Your task to perform on an android device: Open network settings Image 0: 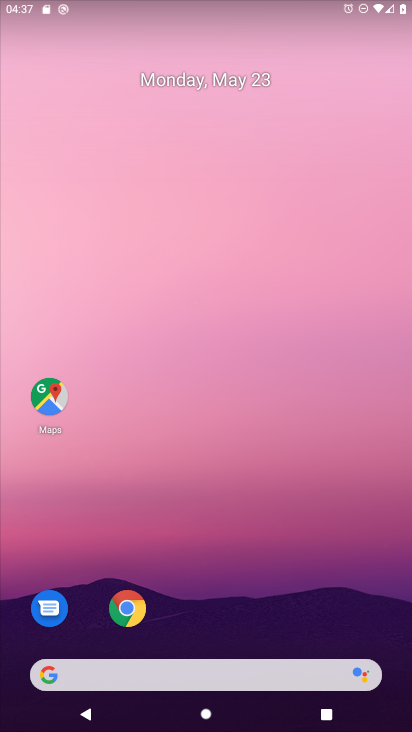
Step 0: drag from (238, 577) to (255, 157)
Your task to perform on an android device: Open network settings Image 1: 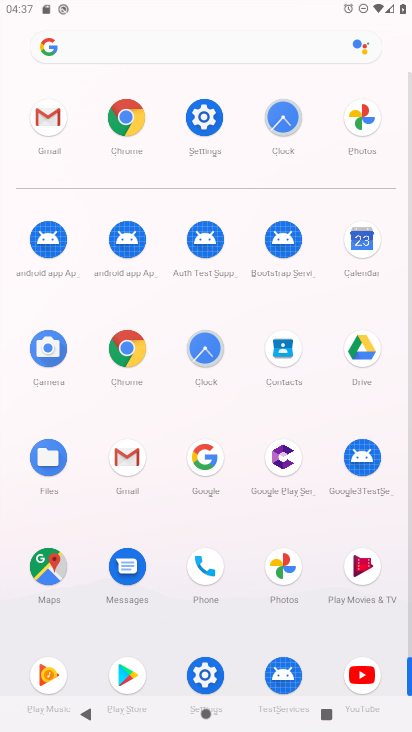
Step 1: click (205, 117)
Your task to perform on an android device: Open network settings Image 2: 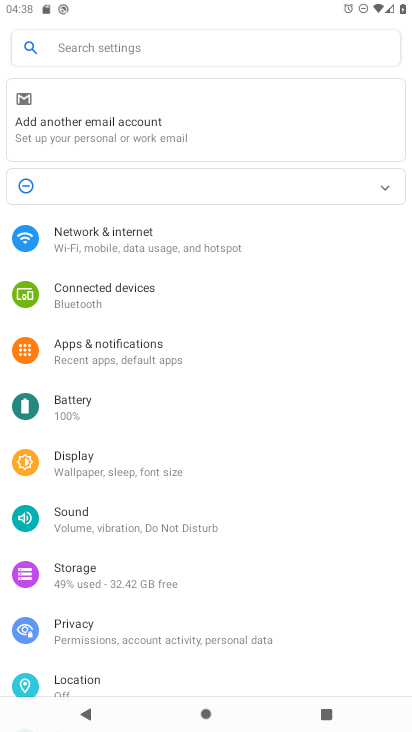
Step 2: click (135, 239)
Your task to perform on an android device: Open network settings Image 3: 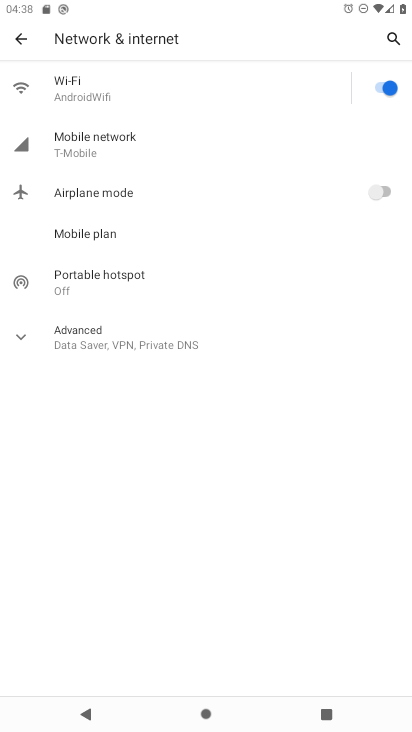
Step 3: click (96, 141)
Your task to perform on an android device: Open network settings Image 4: 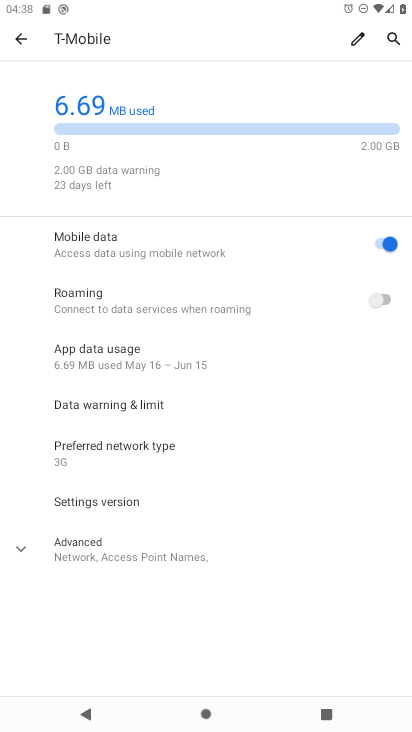
Step 4: task complete